Your task to perform on an android device: turn off javascript in the chrome app Image 0: 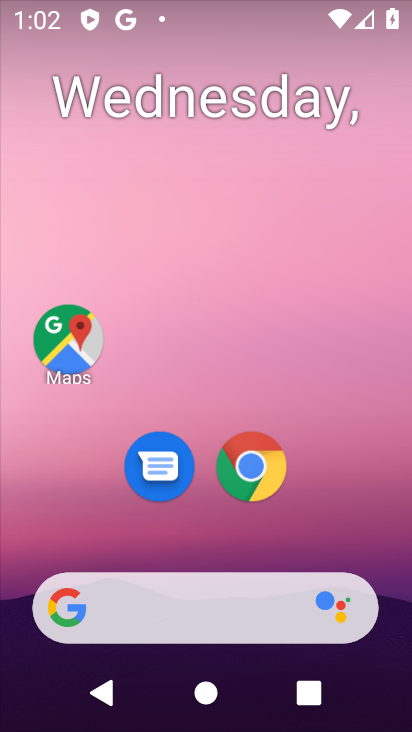
Step 0: click (250, 484)
Your task to perform on an android device: turn off javascript in the chrome app Image 1: 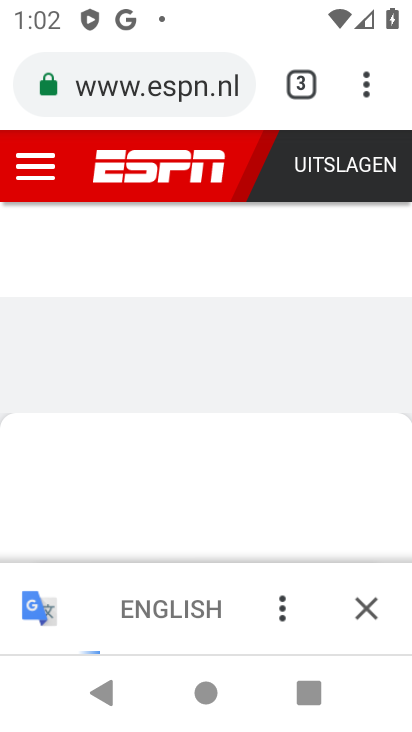
Step 1: click (370, 91)
Your task to perform on an android device: turn off javascript in the chrome app Image 2: 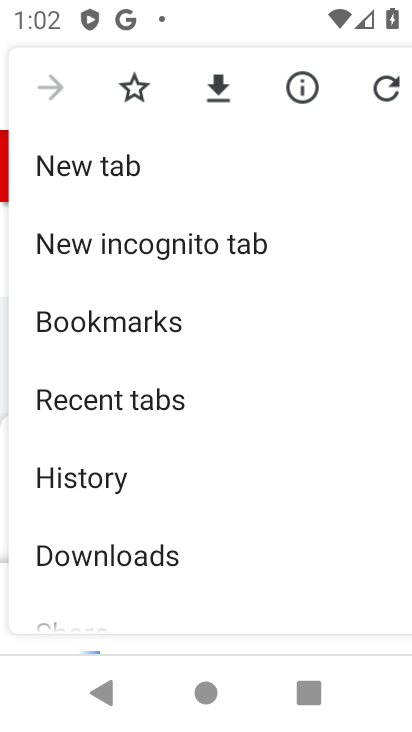
Step 2: drag from (257, 508) to (245, 191)
Your task to perform on an android device: turn off javascript in the chrome app Image 3: 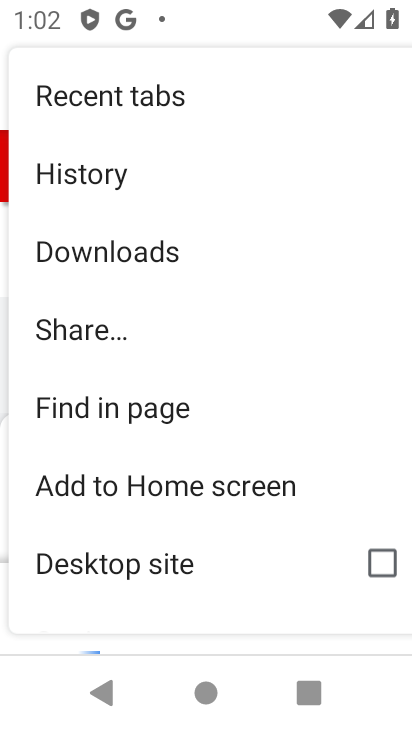
Step 3: drag from (190, 527) to (173, 254)
Your task to perform on an android device: turn off javascript in the chrome app Image 4: 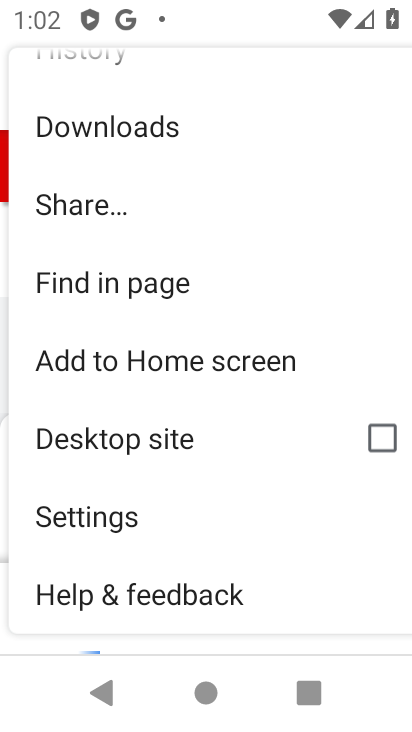
Step 4: click (82, 502)
Your task to perform on an android device: turn off javascript in the chrome app Image 5: 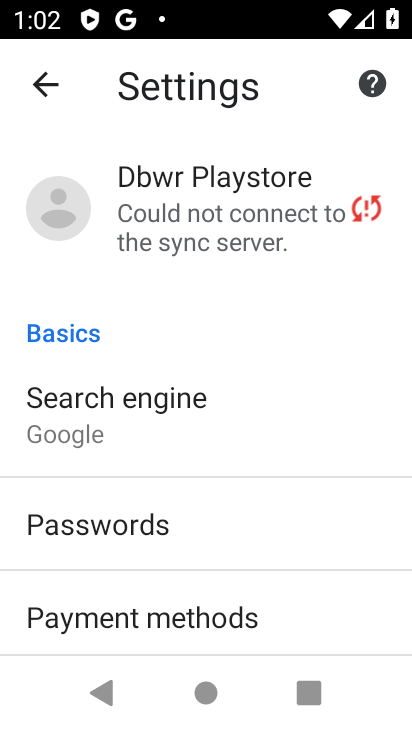
Step 5: drag from (136, 615) to (123, 338)
Your task to perform on an android device: turn off javascript in the chrome app Image 6: 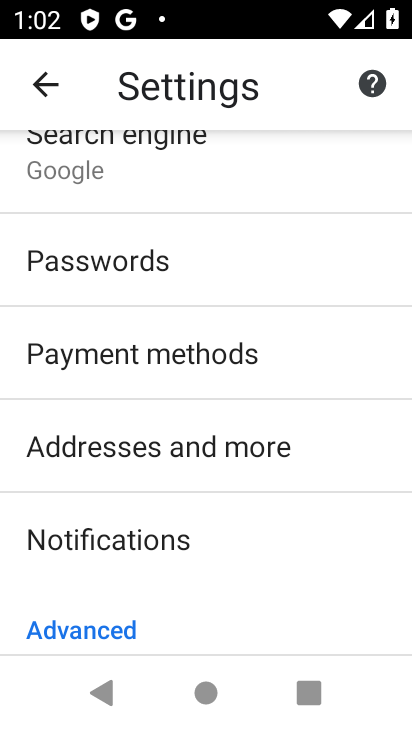
Step 6: drag from (213, 558) to (194, 392)
Your task to perform on an android device: turn off javascript in the chrome app Image 7: 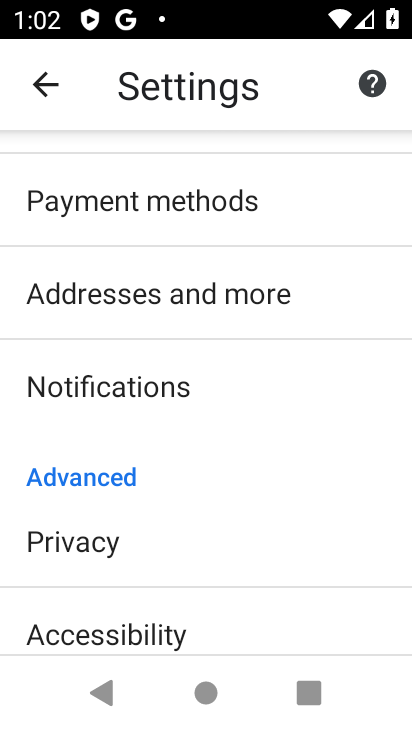
Step 7: drag from (195, 588) to (157, 275)
Your task to perform on an android device: turn off javascript in the chrome app Image 8: 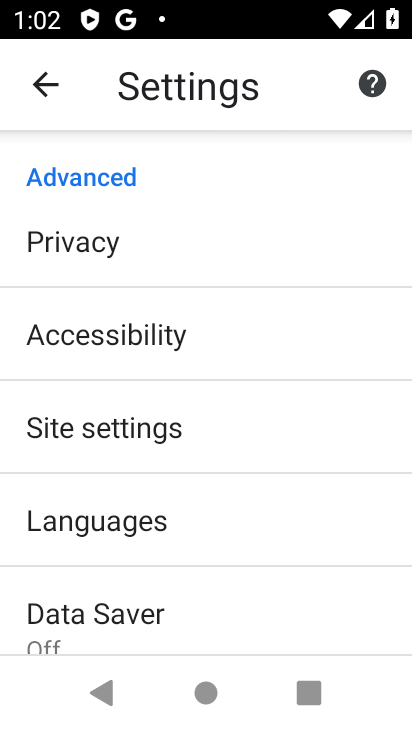
Step 8: click (197, 432)
Your task to perform on an android device: turn off javascript in the chrome app Image 9: 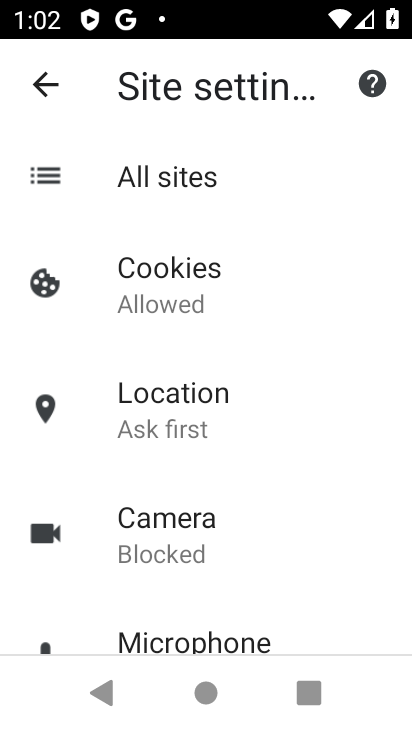
Step 9: drag from (244, 533) to (198, 197)
Your task to perform on an android device: turn off javascript in the chrome app Image 10: 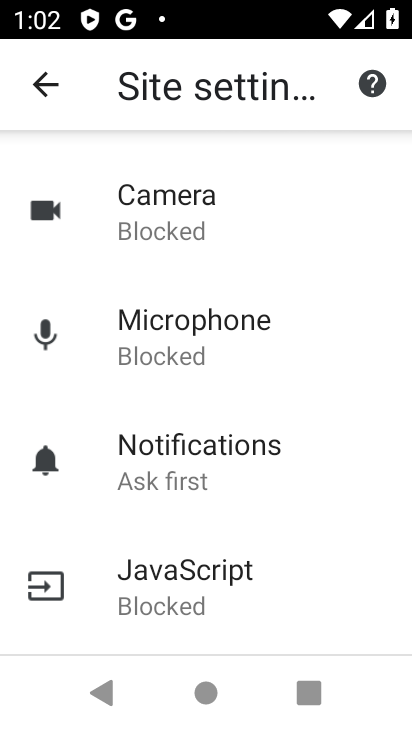
Step 10: click (247, 573)
Your task to perform on an android device: turn off javascript in the chrome app Image 11: 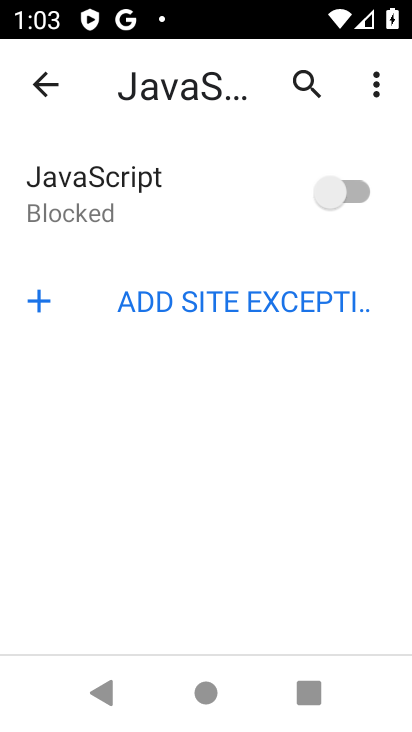
Step 11: task complete